Your task to perform on an android device: Search for hotels in Chicago Image 0: 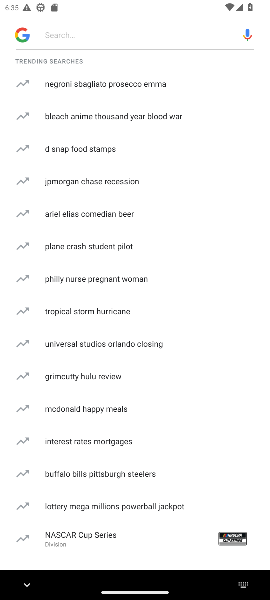
Step 0: press enter
Your task to perform on an android device: Search for hotels in Chicago Image 1: 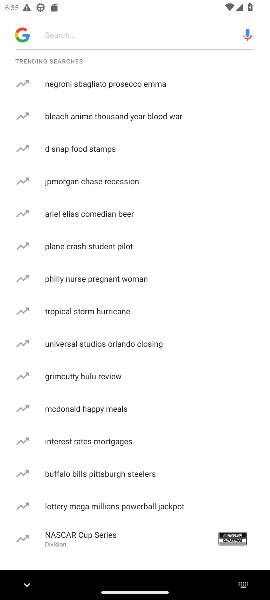
Step 1: type "hotels in Chicago"
Your task to perform on an android device: Search for hotels in Chicago Image 2: 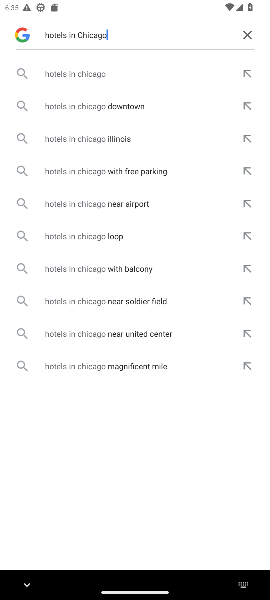
Step 2: click (80, 80)
Your task to perform on an android device: Search for hotels in Chicago Image 3: 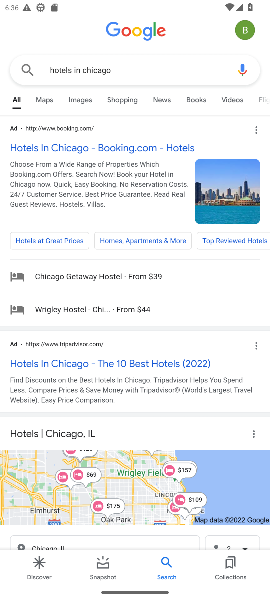
Step 3: drag from (225, 337) to (221, 219)
Your task to perform on an android device: Search for hotels in Chicago Image 4: 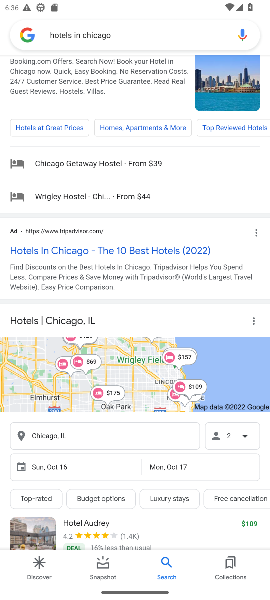
Step 4: drag from (203, 482) to (195, 170)
Your task to perform on an android device: Search for hotels in Chicago Image 5: 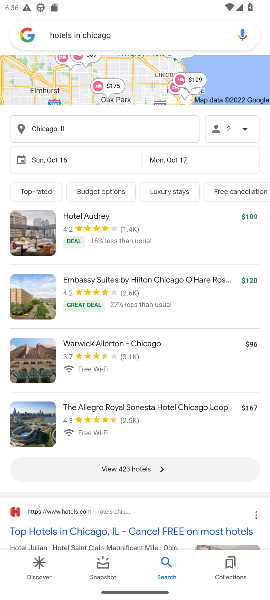
Step 5: click (127, 464)
Your task to perform on an android device: Search for hotels in Chicago Image 6: 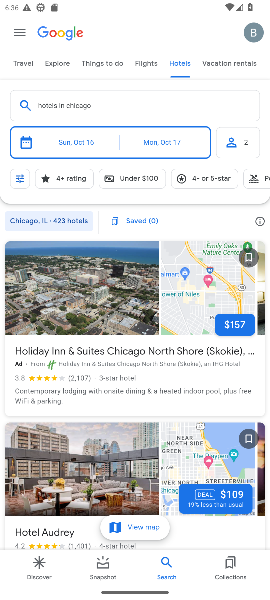
Step 6: drag from (201, 357) to (178, 118)
Your task to perform on an android device: Search for hotels in Chicago Image 7: 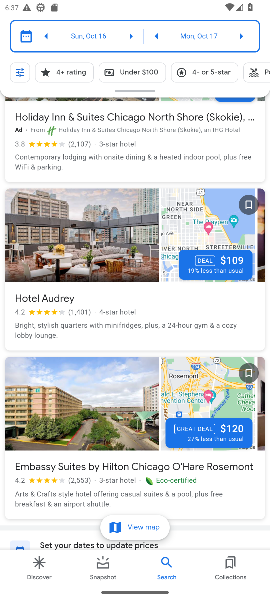
Step 7: drag from (182, 469) to (151, 171)
Your task to perform on an android device: Search for hotels in Chicago Image 8: 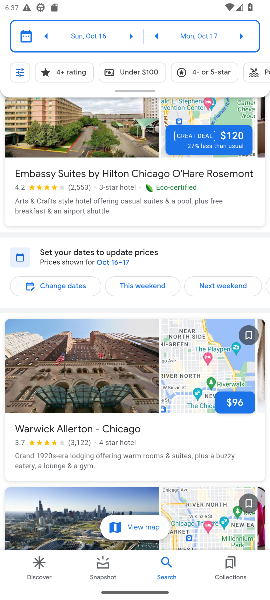
Step 8: drag from (180, 301) to (177, 104)
Your task to perform on an android device: Search for hotels in Chicago Image 9: 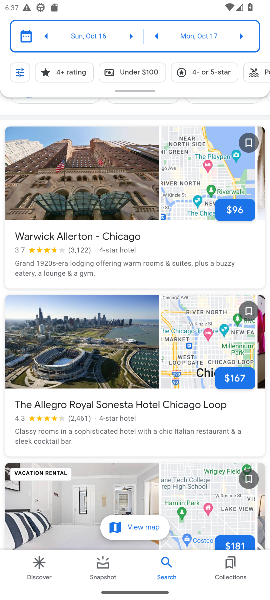
Step 9: click (137, 280)
Your task to perform on an android device: Search for hotels in Chicago Image 10: 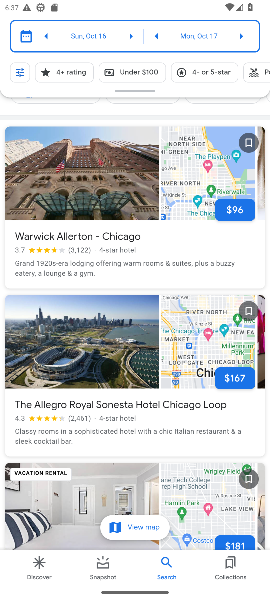
Step 10: task complete